Your task to perform on an android device: change notifications settings Image 0: 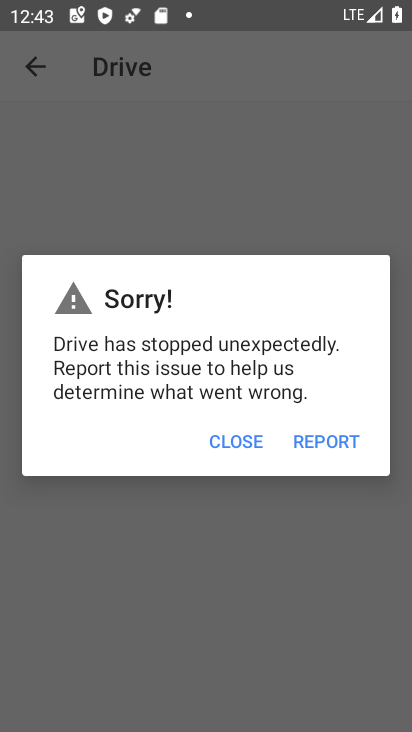
Step 0: press home button
Your task to perform on an android device: change notifications settings Image 1: 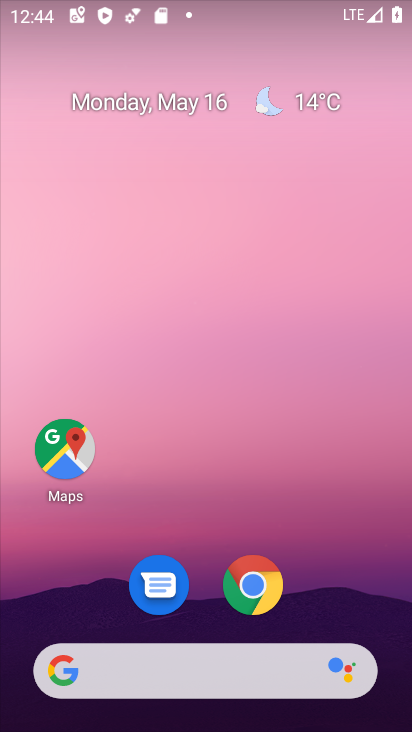
Step 1: drag from (227, 506) to (219, 37)
Your task to perform on an android device: change notifications settings Image 2: 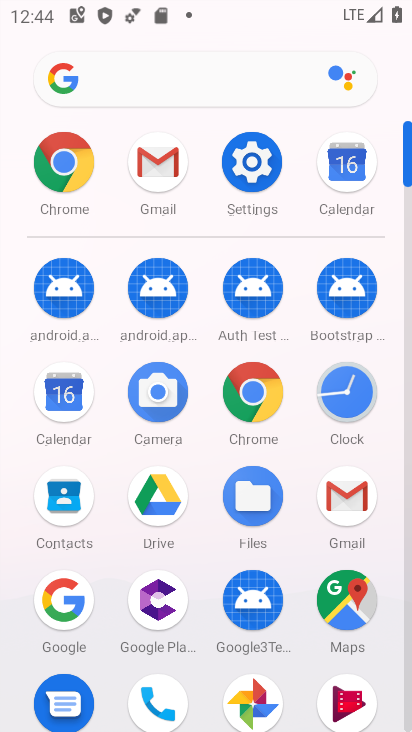
Step 2: click (239, 155)
Your task to perform on an android device: change notifications settings Image 3: 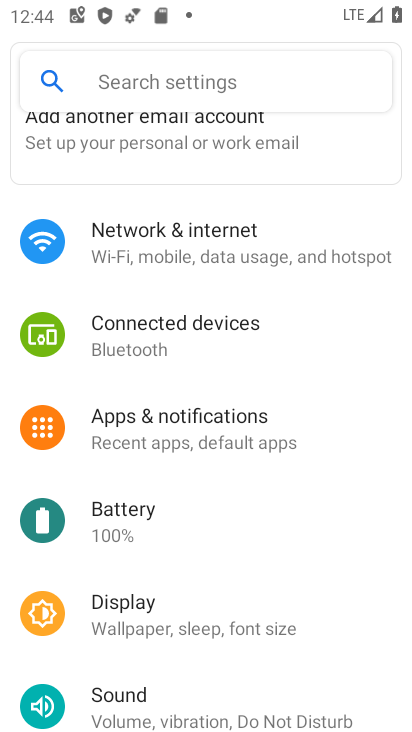
Step 3: click (232, 426)
Your task to perform on an android device: change notifications settings Image 4: 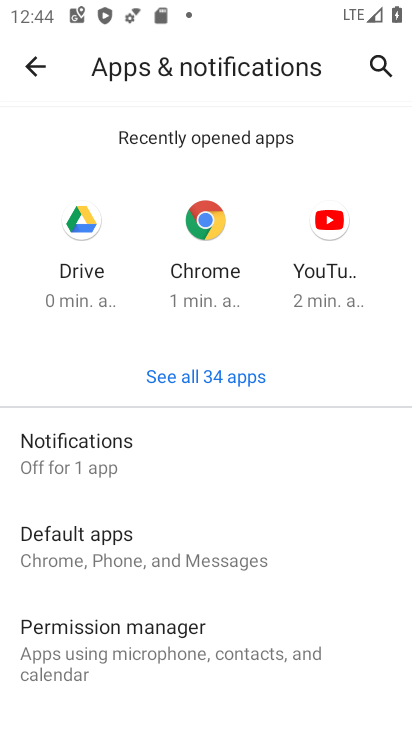
Step 4: click (201, 451)
Your task to perform on an android device: change notifications settings Image 5: 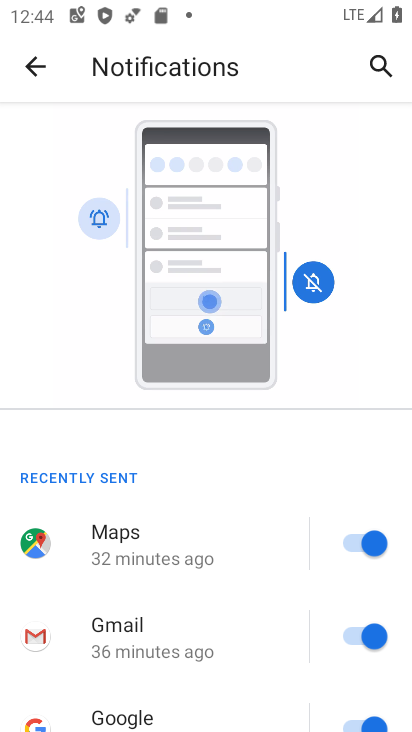
Step 5: drag from (210, 559) to (216, 220)
Your task to perform on an android device: change notifications settings Image 6: 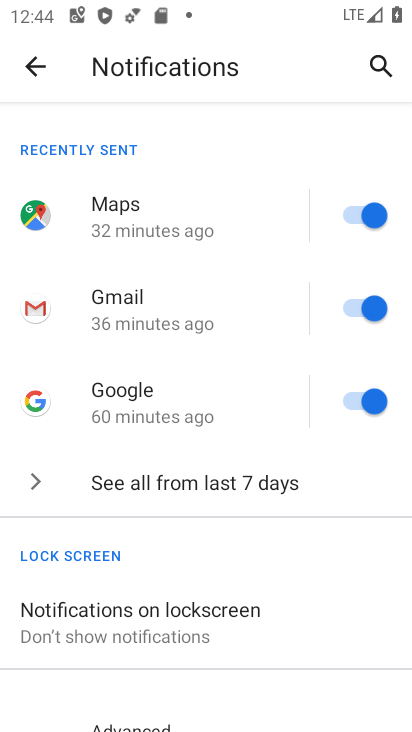
Step 6: click (205, 470)
Your task to perform on an android device: change notifications settings Image 7: 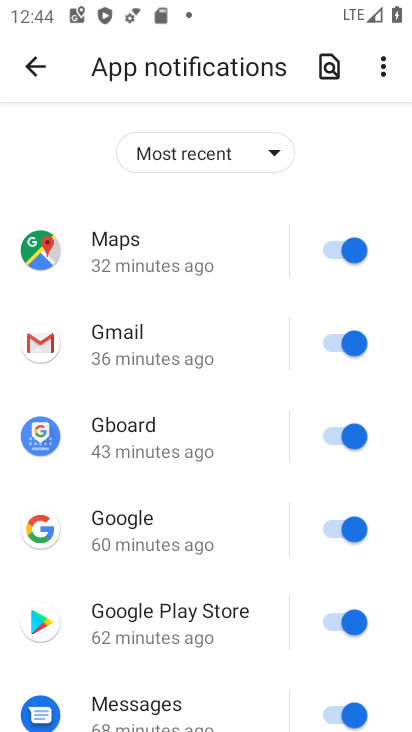
Step 7: click (341, 250)
Your task to perform on an android device: change notifications settings Image 8: 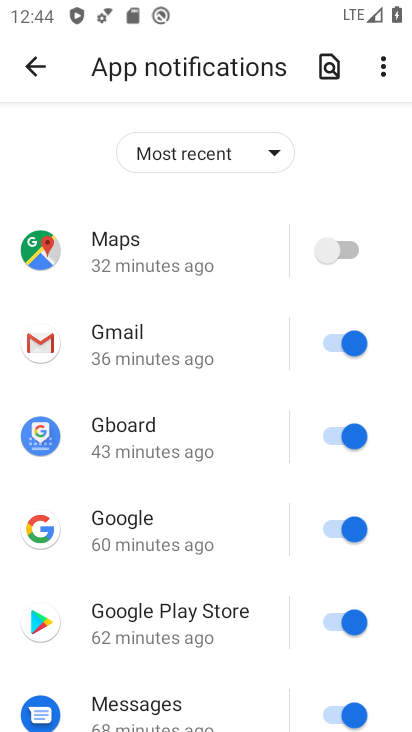
Step 8: click (339, 340)
Your task to perform on an android device: change notifications settings Image 9: 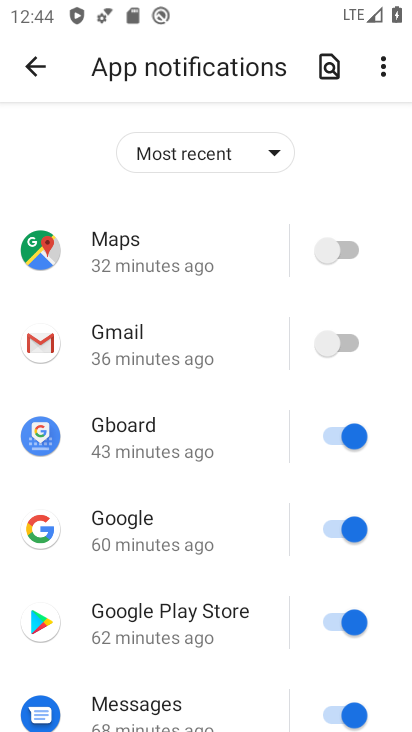
Step 9: click (344, 434)
Your task to perform on an android device: change notifications settings Image 10: 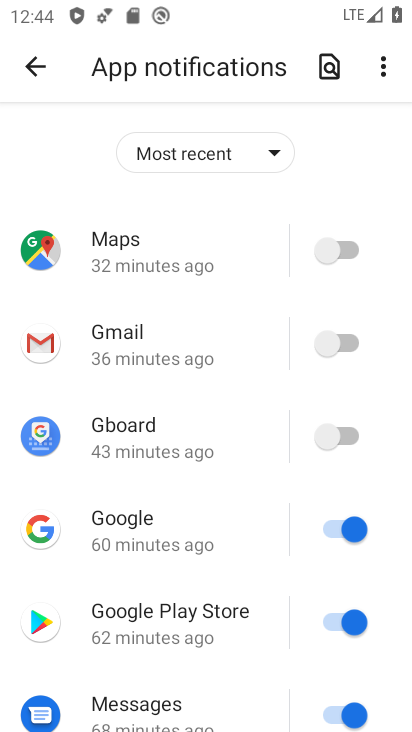
Step 10: click (337, 515)
Your task to perform on an android device: change notifications settings Image 11: 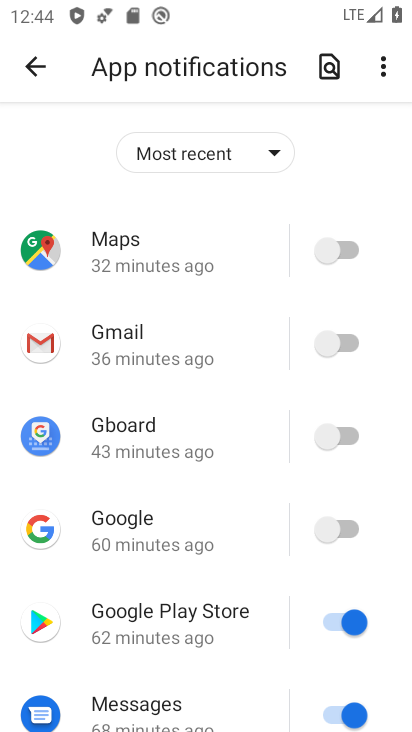
Step 11: click (343, 615)
Your task to perform on an android device: change notifications settings Image 12: 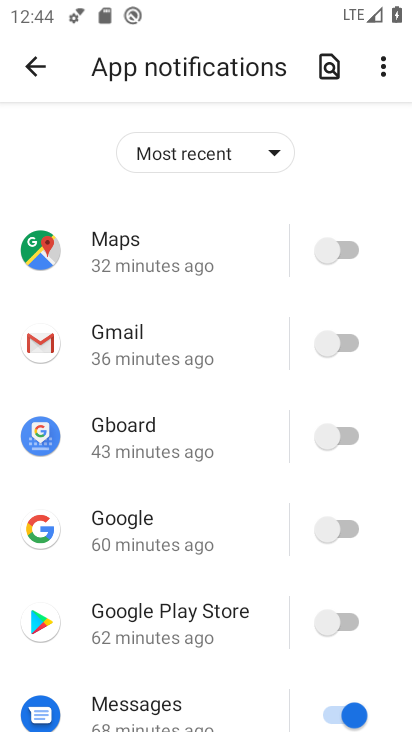
Step 12: click (338, 700)
Your task to perform on an android device: change notifications settings Image 13: 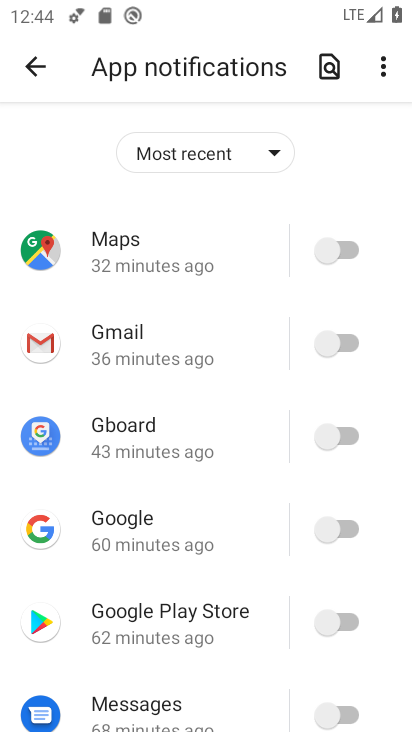
Step 13: drag from (247, 637) to (239, 214)
Your task to perform on an android device: change notifications settings Image 14: 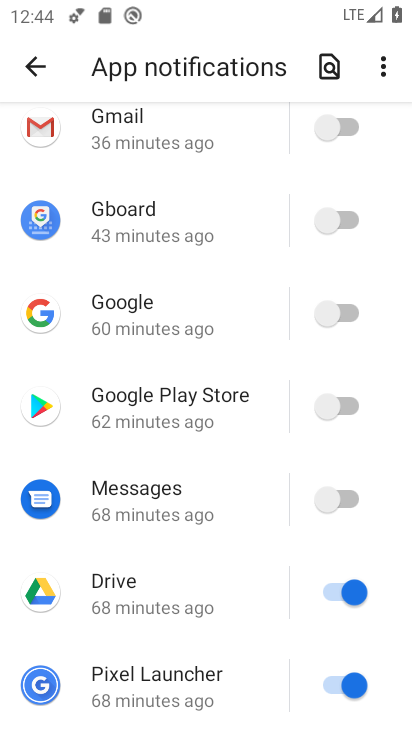
Step 14: click (343, 577)
Your task to perform on an android device: change notifications settings Image 15: 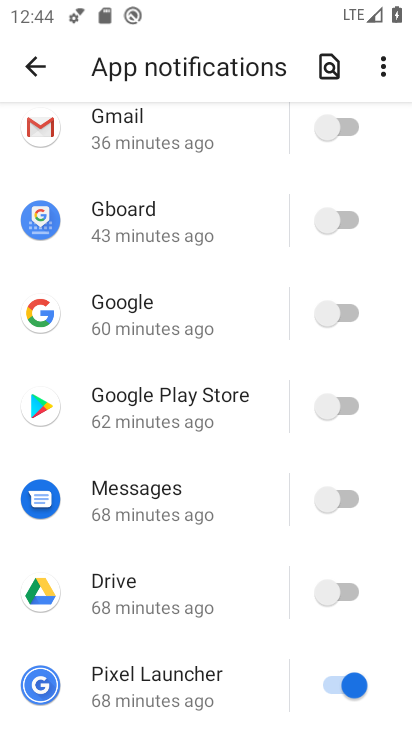
Step 15: click (337, 675)
Your task to perform on an android device: change notifications settings Image 16: 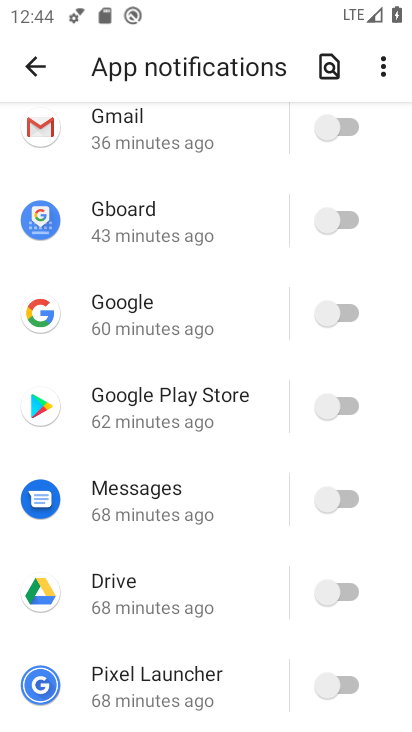
Step 16: task complete